Your task to perform on an android device: Open sound settings Image 0: 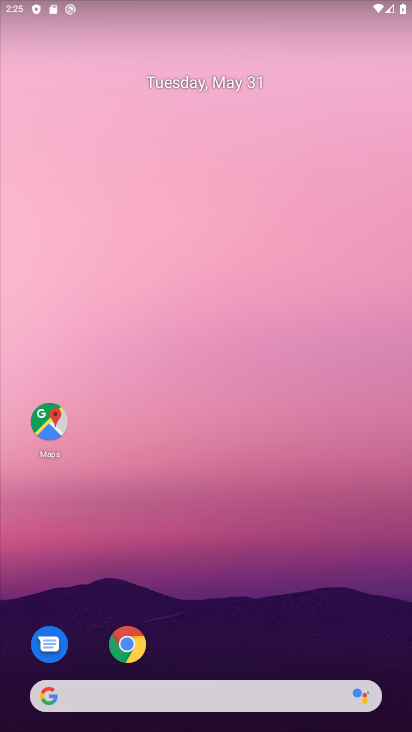
Step 0: drag from (150, 689) to (174, 71)
Your task to perform on an android device: Open sound settings Image 1: 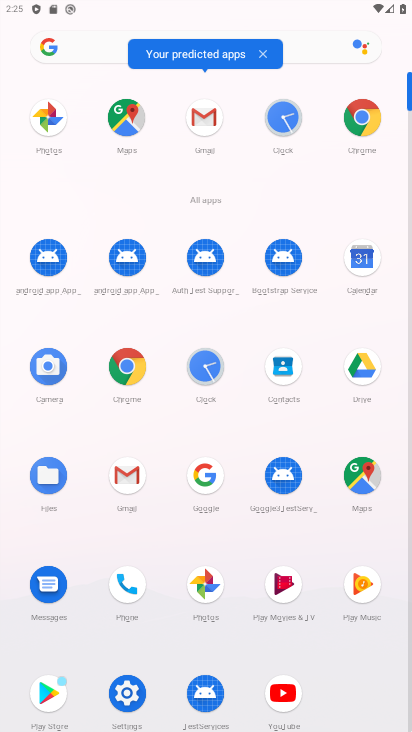
Step 1: click (130, 700)
Your task to perform on an android device: Open sound settings Image 2: 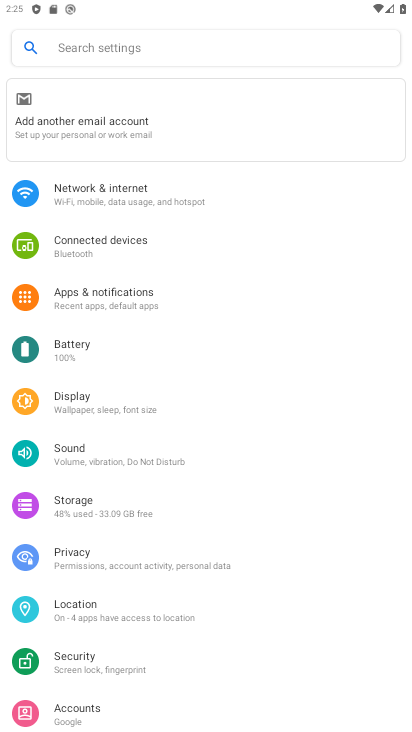
Step 2: click (73, 446)
Your task to perform on an android device: Open sound settings Image 3: 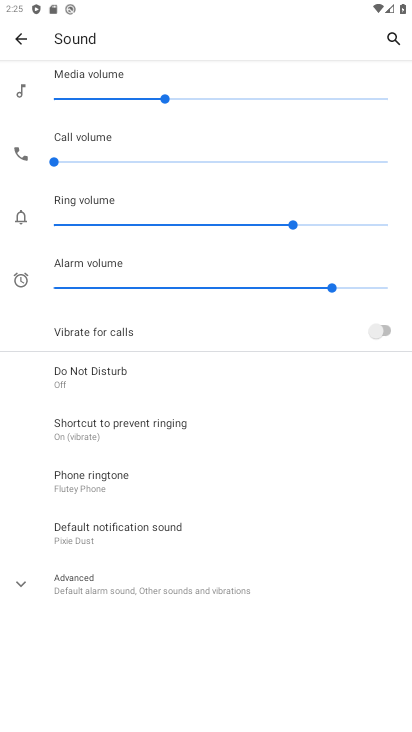
Step 3: task complete